Your task to perform on an android device: Open notification settings Image 0: 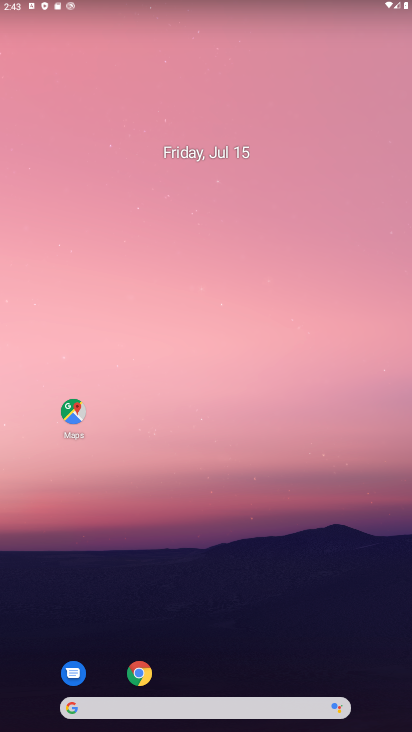
Step 0: drag from (373, 640) to (305, 228)
Your task to perform on an android device: Open notification settings Image 1: 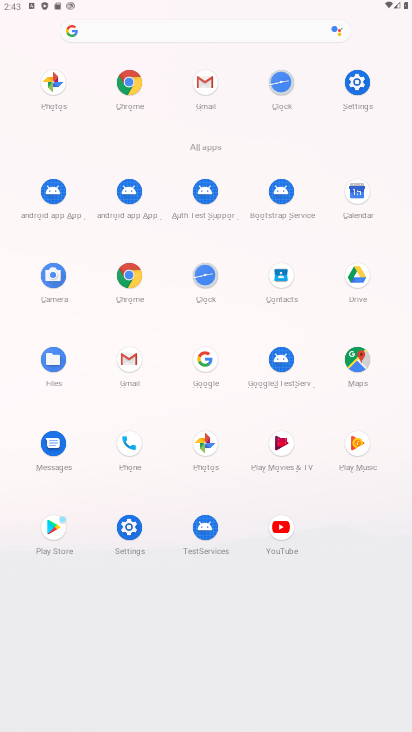
Step 1: click (129, 526)
Your task to perform on an android device: Open notification settings Image 2: 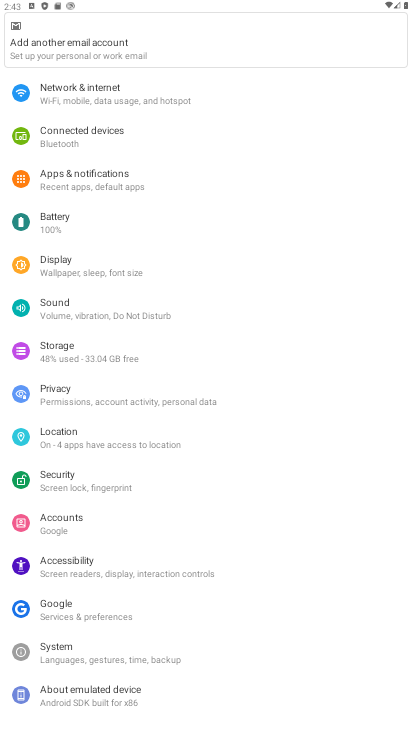
Step 2: click (76, 175)
Your task to perform on an android device: Open notification settings Image 3: 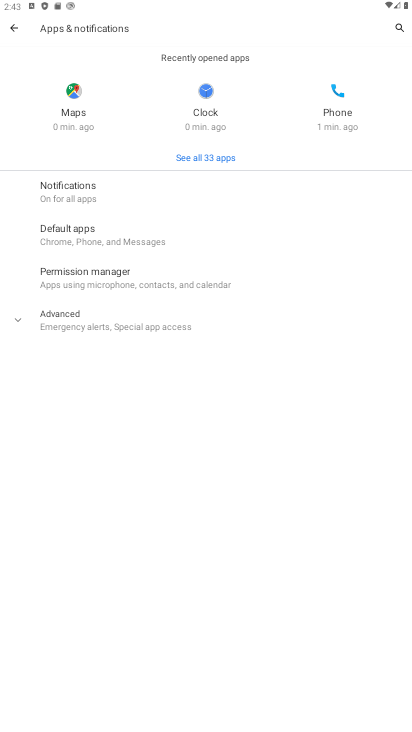
Step 3: click (59, 196)
Your task to perform on an android device: Open notification settings Image 4: 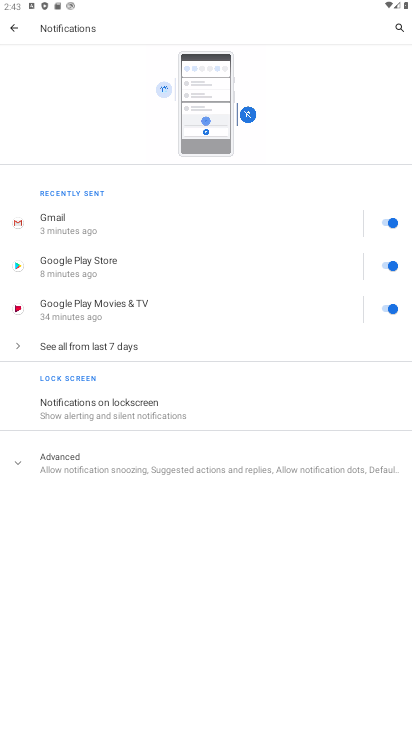
Step 4: click (20, 462)
Your task to perform on an android device: Open notification settings Image 5: 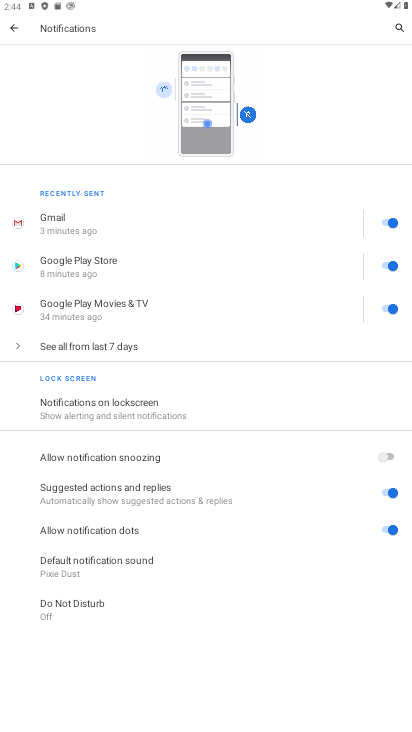
Step 5: task complete